Your task to perform on an android device: What's the weather going to be this weekend? Image 0: 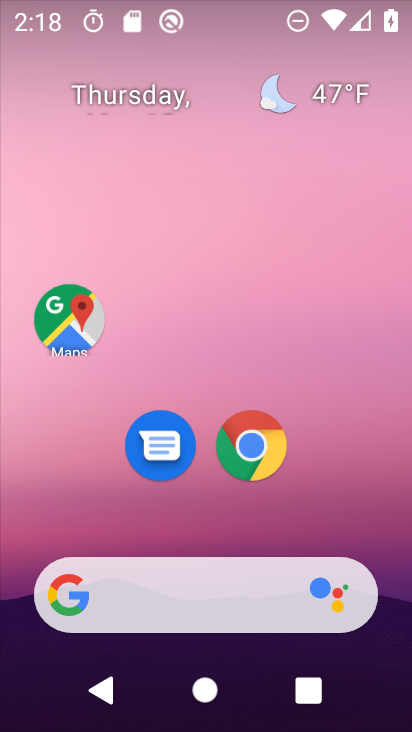
Step 0: drag from (243, 513) to (253, 147)
Your task to perform on an android device: What's the weather going to be this weekend? Image 1: 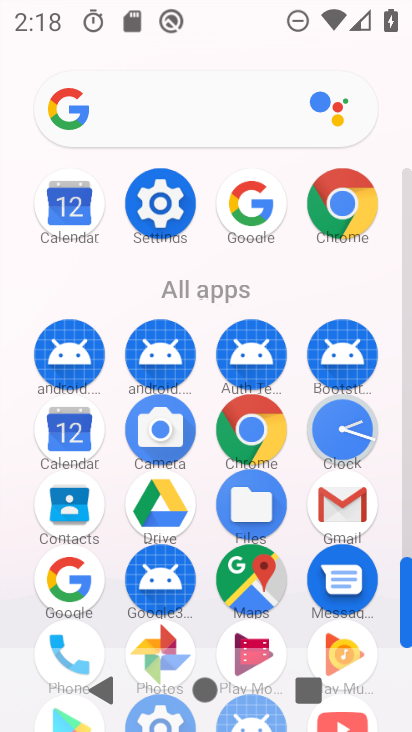
Step 1: click (76, 431)
Your task to perform on an android device: What's the weather going to be this weekend? Image 2: 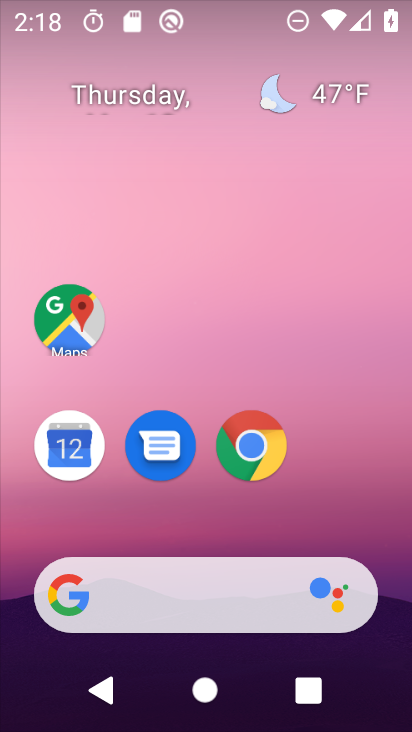
Step 2: click (211, 530)
Your task to perform on an android device: What's the weather going to be this weekend? Image 3: 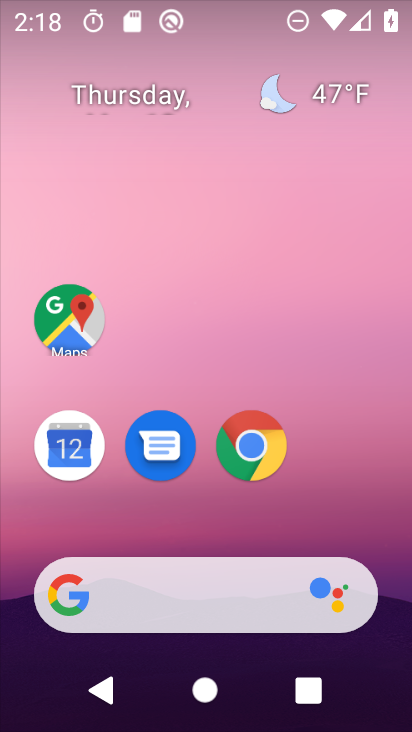
Step 3: drag from (212, 460) to (224, 210)
Your task to perform on an android device: What's the weather going to be this weekend? Image 4: 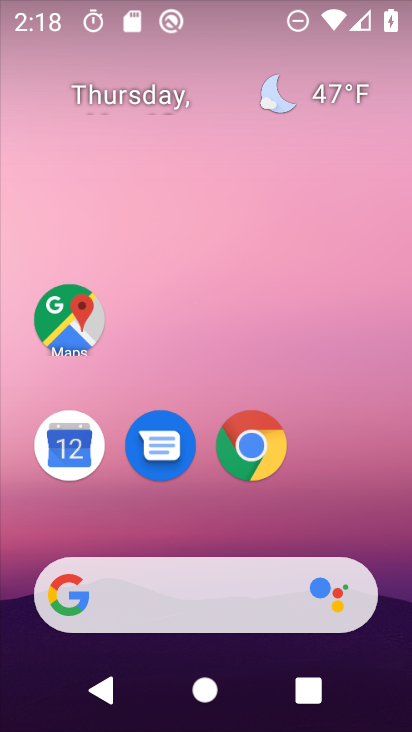
Step 4: drag from (216, 542) to (220, 149)
Your task to perform on an android device: What's the weather going to be this weekend? Image 5: 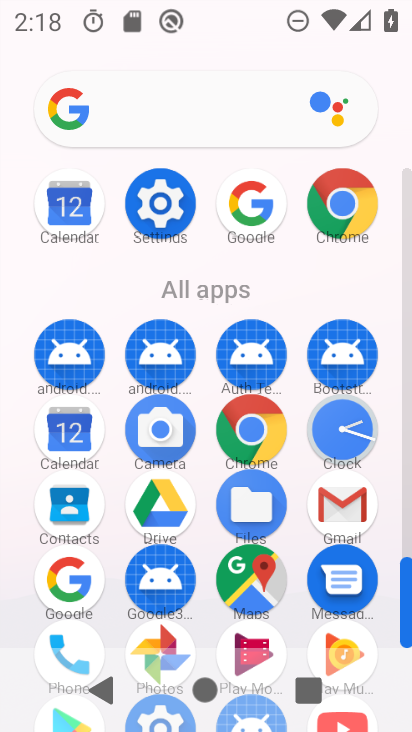
Step 5: click (77, 572)
Your task to perform on an android device: What's the weather going to be this weekend? Image 6: 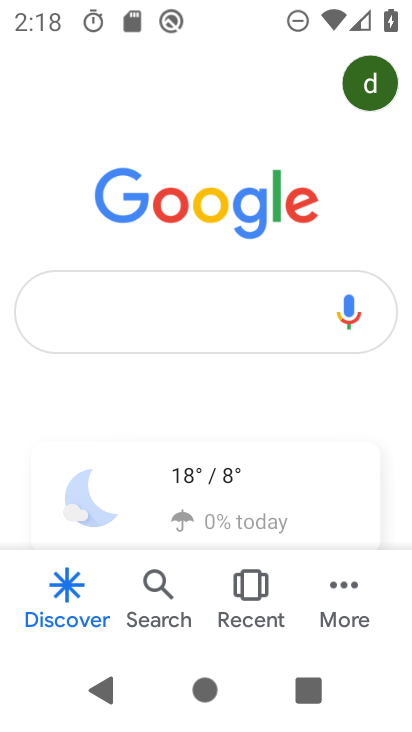
Step 6: click (167, 502)
Your task to perform on an android device: What's the weather going to be this weekend? Image 7: 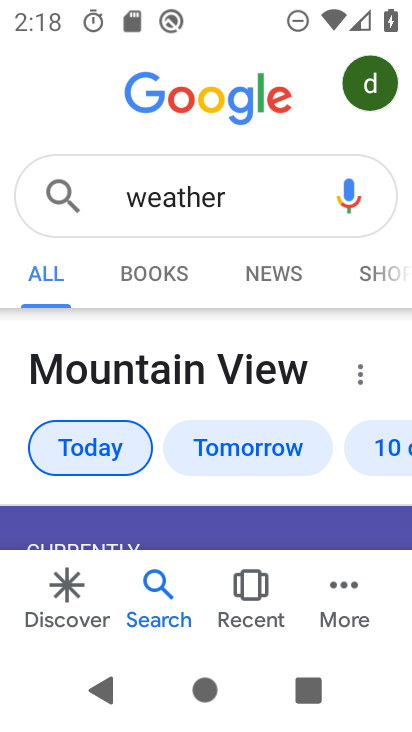
Step 7: drag from (245, 473) to (276, 246)
Your task to perform on an android device: What's the weather going to be this weekend? Image 8: 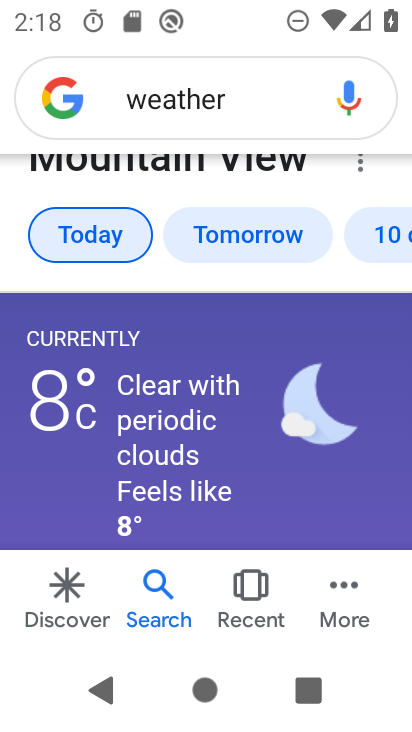
Step 8: click (359, 229)
Your task to perform on an android device: What's the weather going to be this weekend? Image 9: 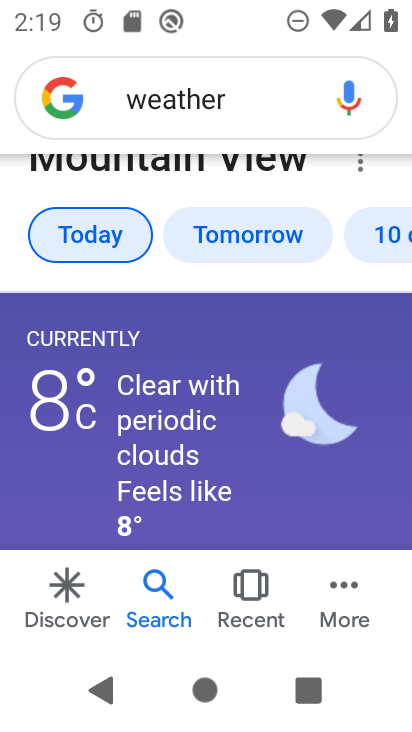
Step 9: click (367, 235)
Your task to perform on an android device: What's the weather going to be this weekend? Image 10: 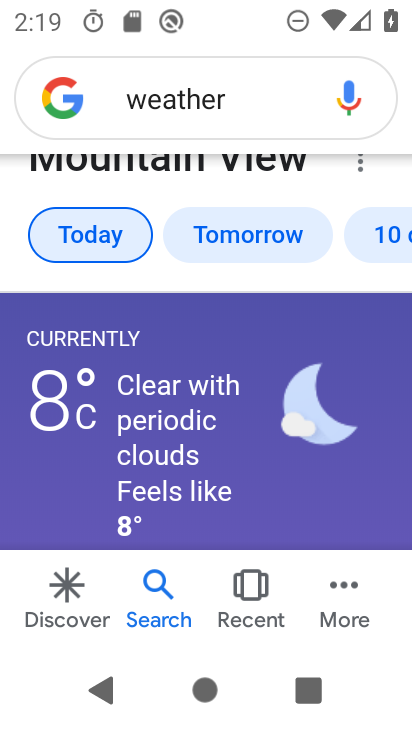
Step 10: click (367, 235)
Your task to perform on an android device: What's the weather going to be this weekend? Image 11: 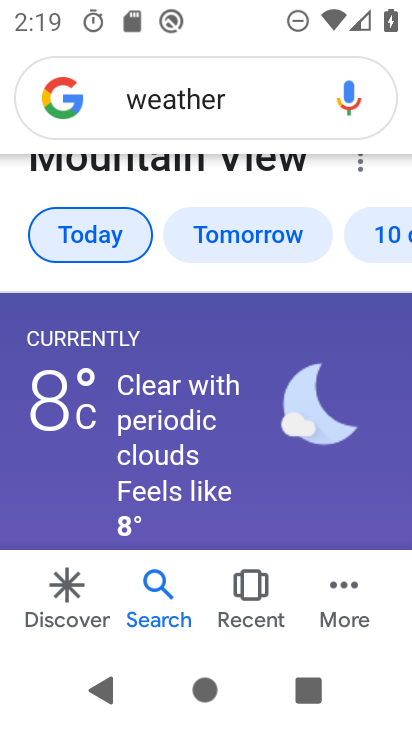
Step 11: click (367, 235)
Your task to perform on an android device: What's the weather going to be this weekend? Image 12: 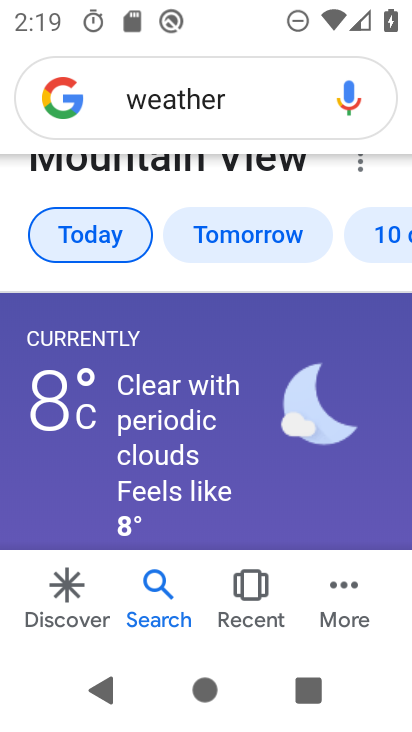
Step 12: task complete